Your task to perform on an android device: turn off data saver in the chrome app Image 0: 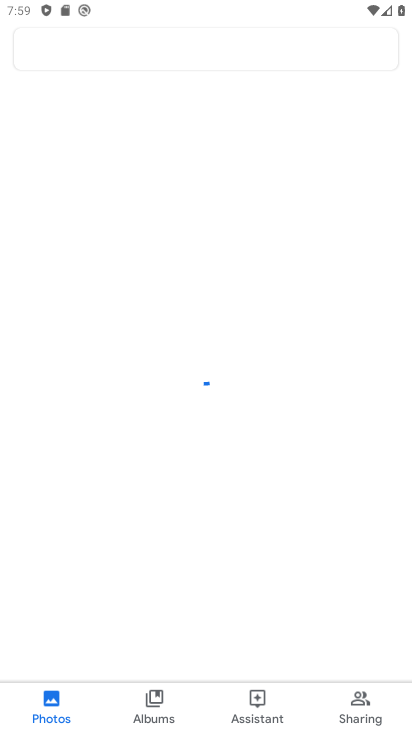
Step 0: press home button
Your task to perform on an android device: turn off data saver in the chrome app Image 1: 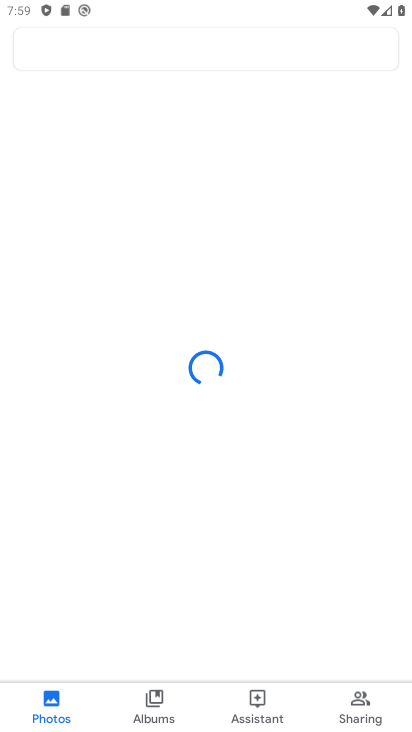
Step 1: press home button
Your task to perform on an android device: turn off data saver in the chrome app Image 2: 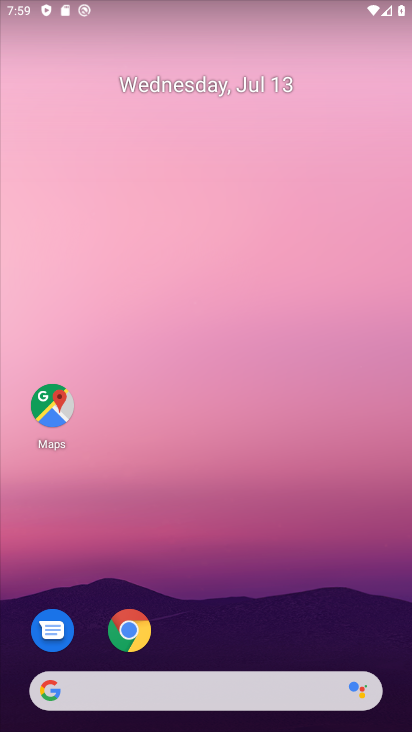
Step 2: drag from (214, 653) to (374, 209)
Your task to perform on an android device: turn off data saver in the chrome app Image 3: 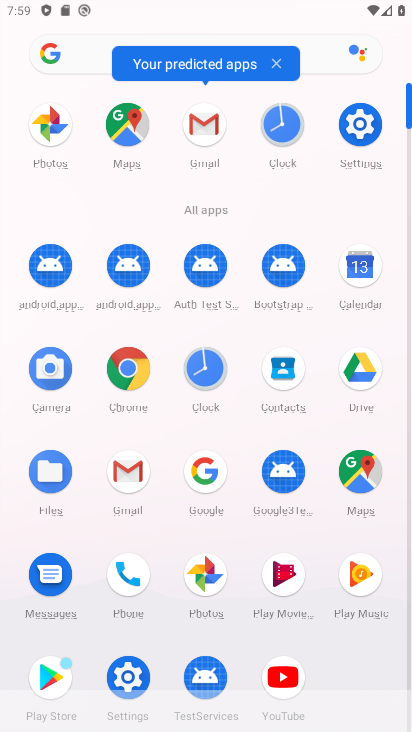
Step 3: click (128, 365)
Your task to perform on an android device: turn off data saver in the chrome app Image 4: 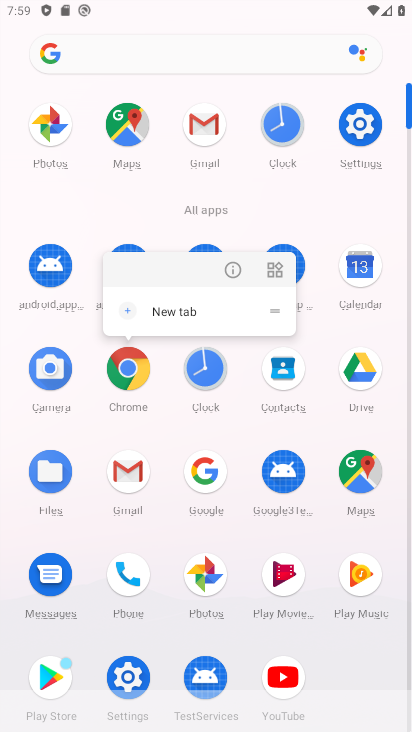
Step 4: click (231, 277)
Your task to perform on an android device: turn off data saver in the chrome app Image 5: 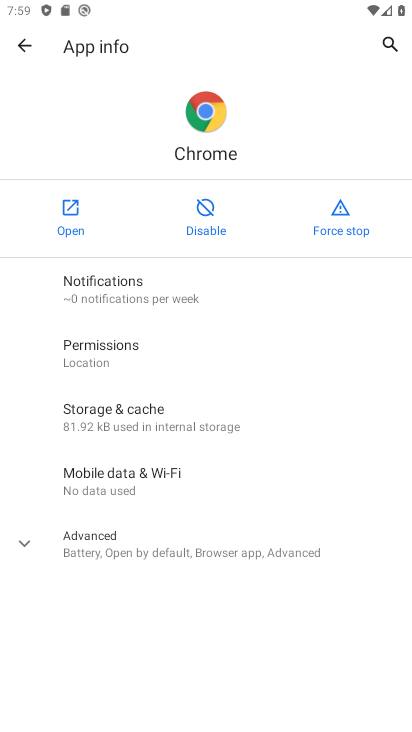
Step 5: click (76, 209)
Your task to perform on an android device: turn off data saver in the chrome app Image 6: 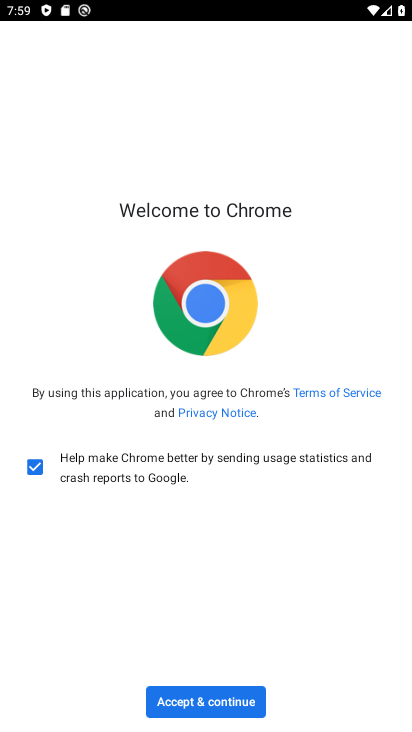
Step 6: click (192, 691)
Your task to perform on an android device: turn off data saver in the chrome app Image 7: 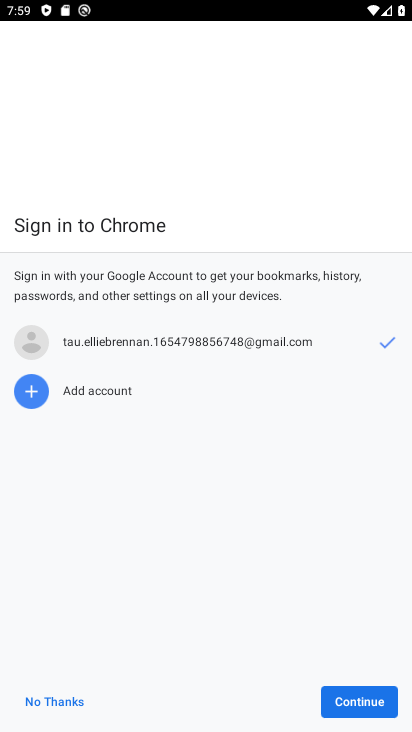
Step 7: click (344, 692)
Your task to perform on an android device: turn off data saver in the chrome app Image 8: 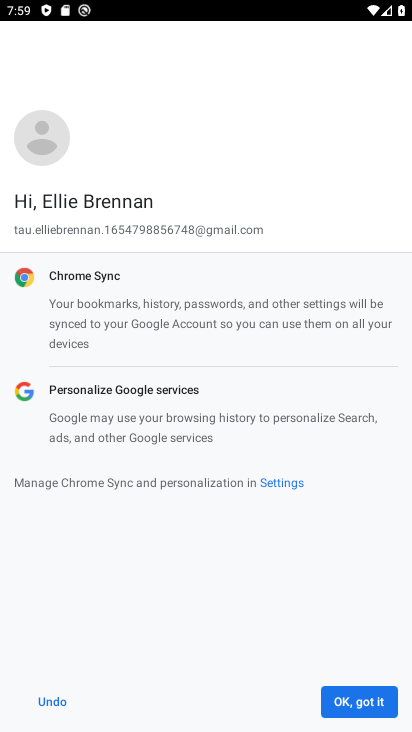
Step 8: click (349, 698)
Your task to perform on an android device: turn off data saver in the chrome app Image 9: 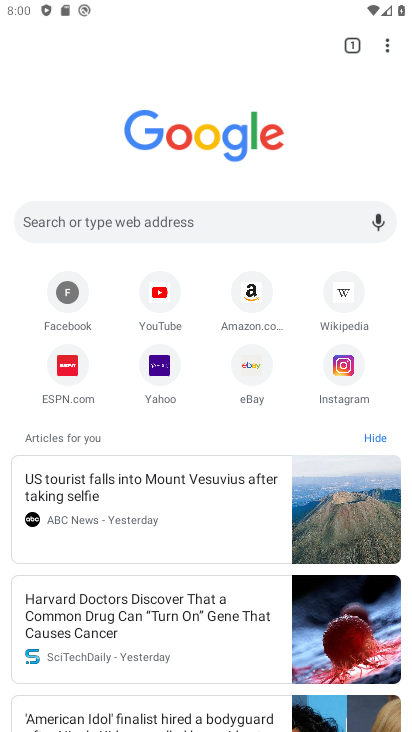
Step 9: click (387, 46)
Your task to perform on an android device: turn off data saver in the chrome app Image 10: 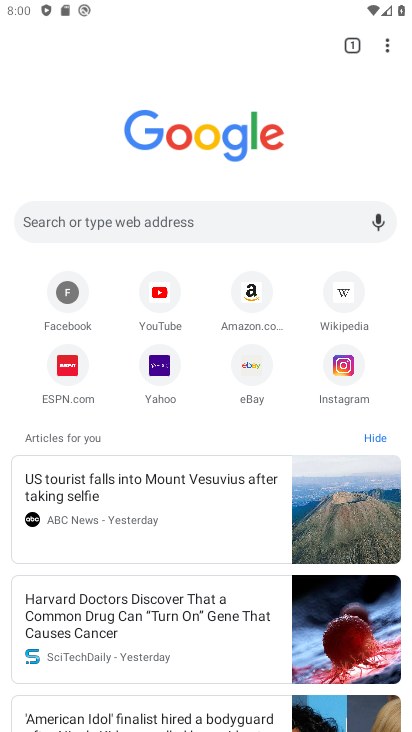
Step 10: drag from (389, 41) to (258, 385)
Your task to perform on an android device: turn off data saver in the chrome app Image 11: 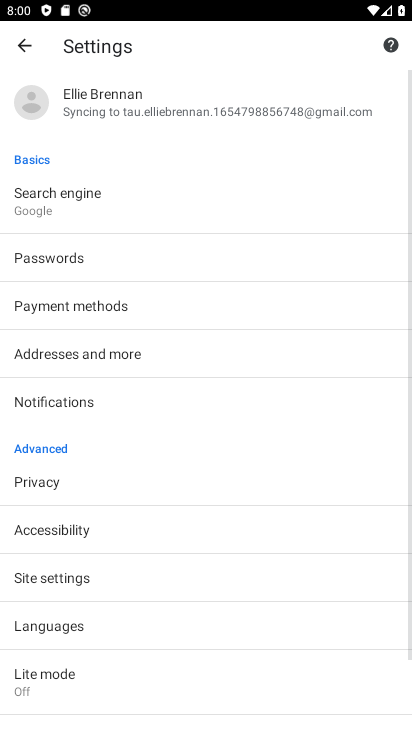
Step 11: drag from (164, 501) to (226, 321)
Your task to perform on an android device: turn off data saver in the chrome app Image 12: 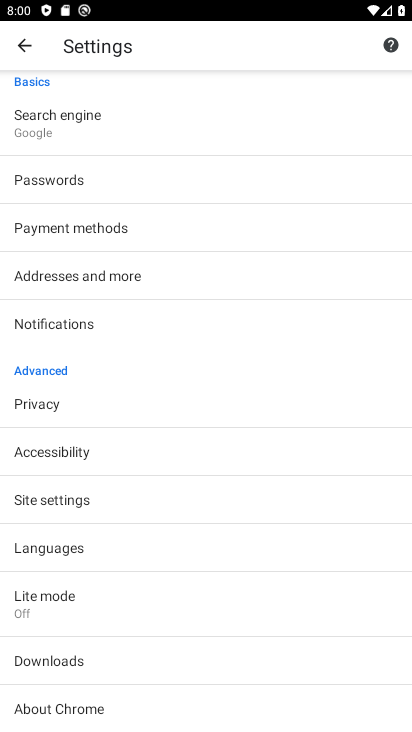
Step 12: click (102, 496)
Your task to perform on an android device: turn off data saver in the chrome app Image 13: 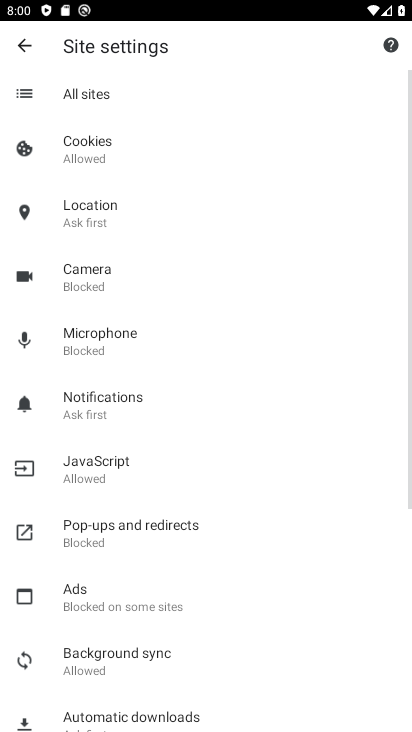
Step 13: drag from (175, 485) to (208, 302)
Your task to perform on an android device: turn off data saver in the chrome app Image 14: 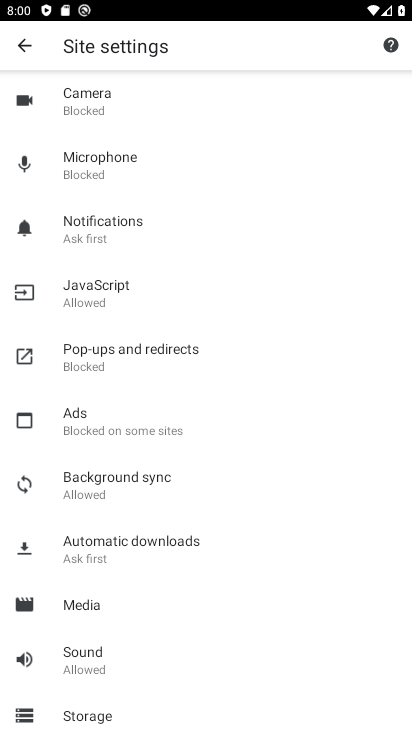
Step 14: click (19, 40)
Your task to perform on an android device: turn off data saver in the chrome app Image 15: 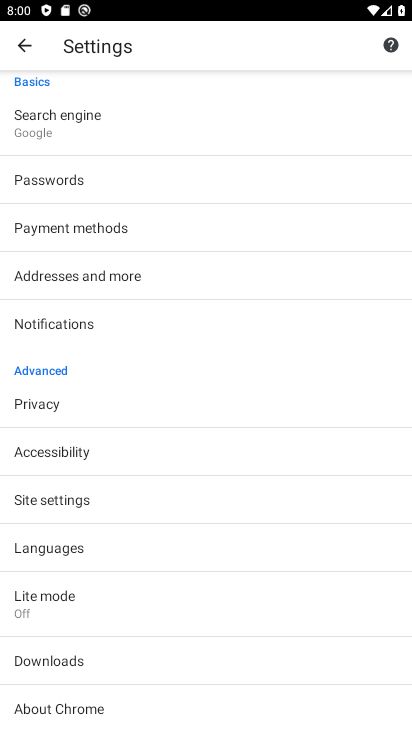
Step 15: click (98, 591)
Your task to perform on an android device: turn off data saver in the chrome app Image 16: 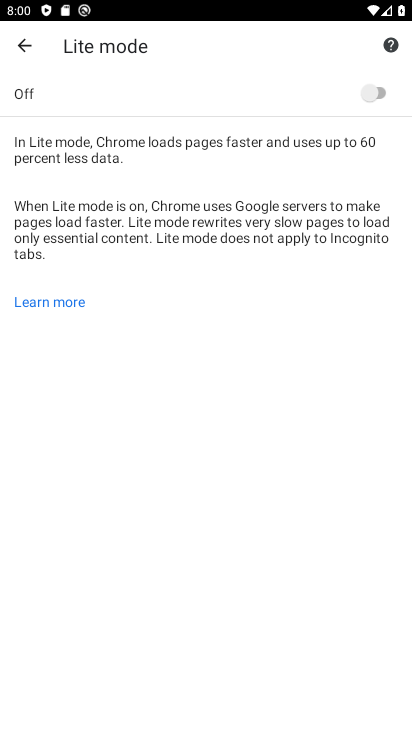
Step 16: task complete